Your task to perform on an android device: Clear the cart on ebay.com. Search for rayovac triple a on ebay.com, select the first entry, and add it to the cart. Image 0: 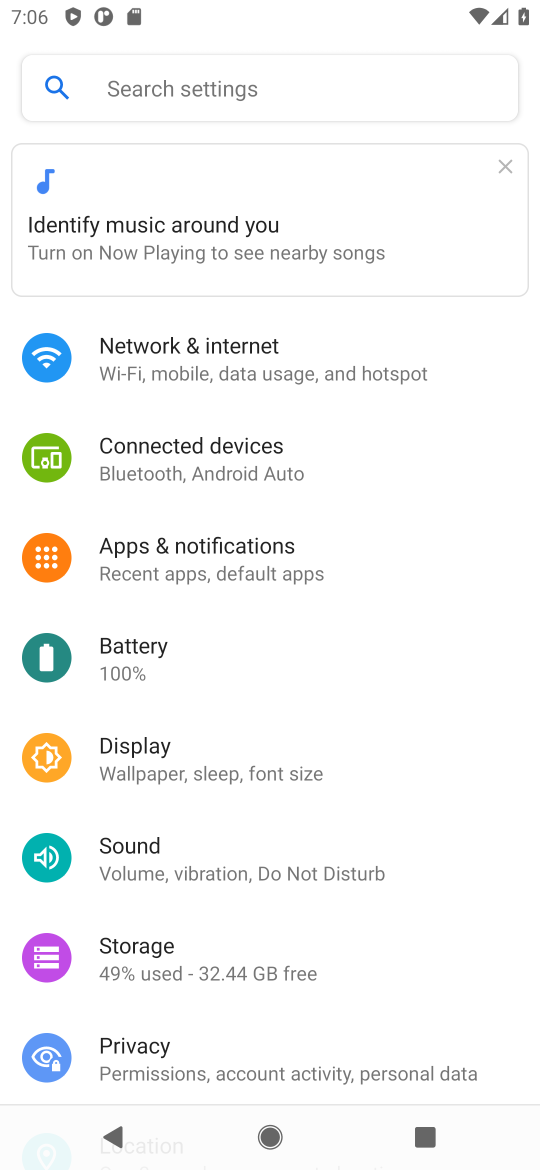
Step 0: press home button
Your task to perform on an android device: Clear the cart on ebay.com. Search for rayovac triple a on ebay.com, select the first entry, and add it to the cart. Image 1: 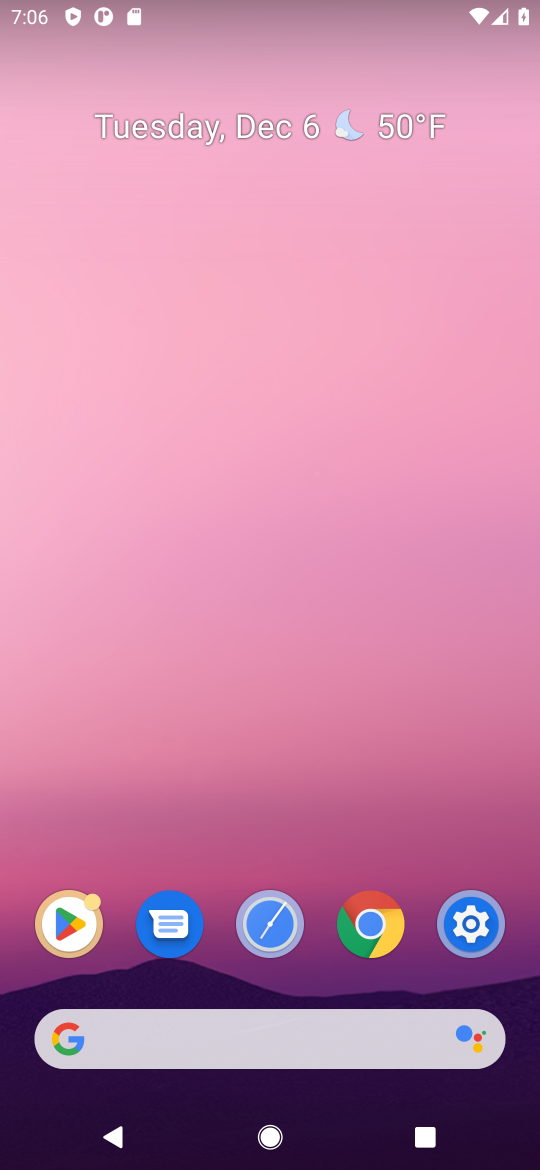
Step 1: click (307, 1029)
Your task to perform on an android device: Clear the cart on ebay.com. Search for rayovac triple a on ebay.com, select the first entry, and add it to the cart. Image 2: 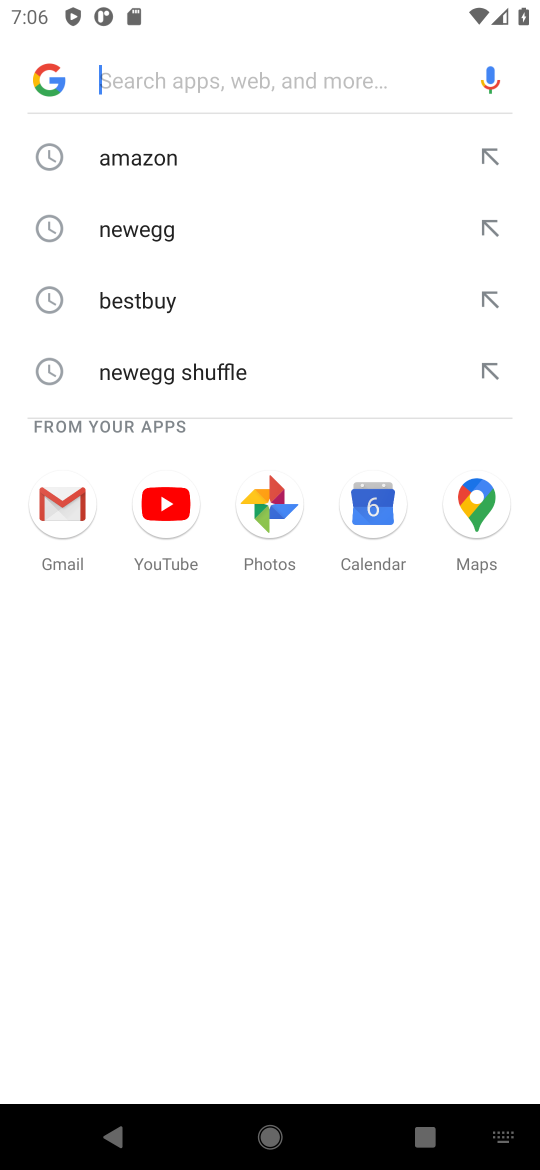
Step 2: type "ebay.com"
Your task to perform on an android device: Clear the cart on ebay.com. Search for rayovac triple a on ebay.com, select the first entry, and add it to the cart. Image 3: 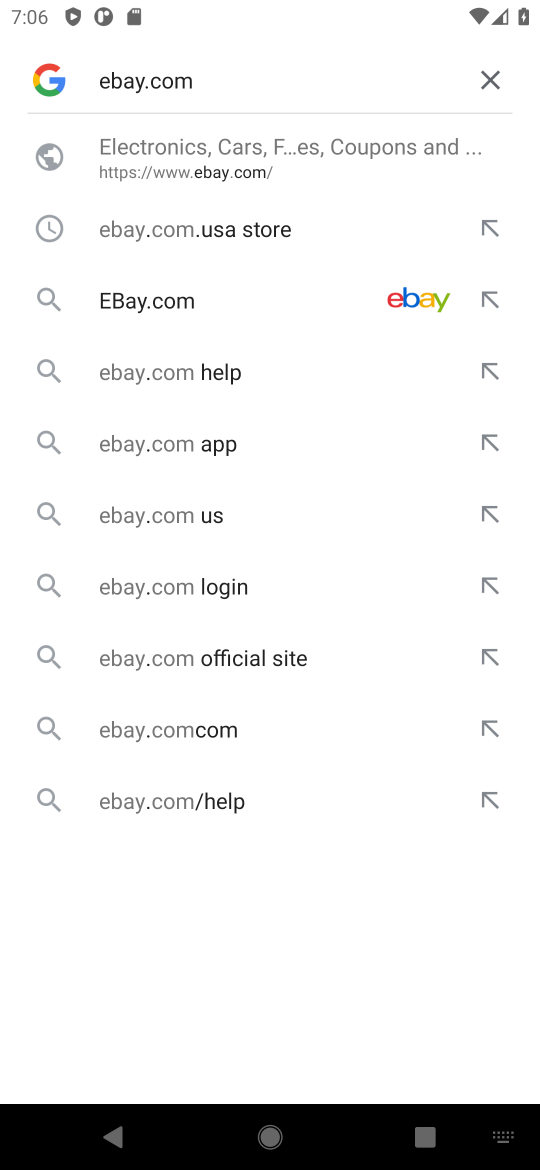
Step 3: click (141, 168)
Your task to perform on an android device: Clear the cart on ebay.com. Search for rayovac triple a on ebay.com, select the first entry, and add it to the cart. Image 4: 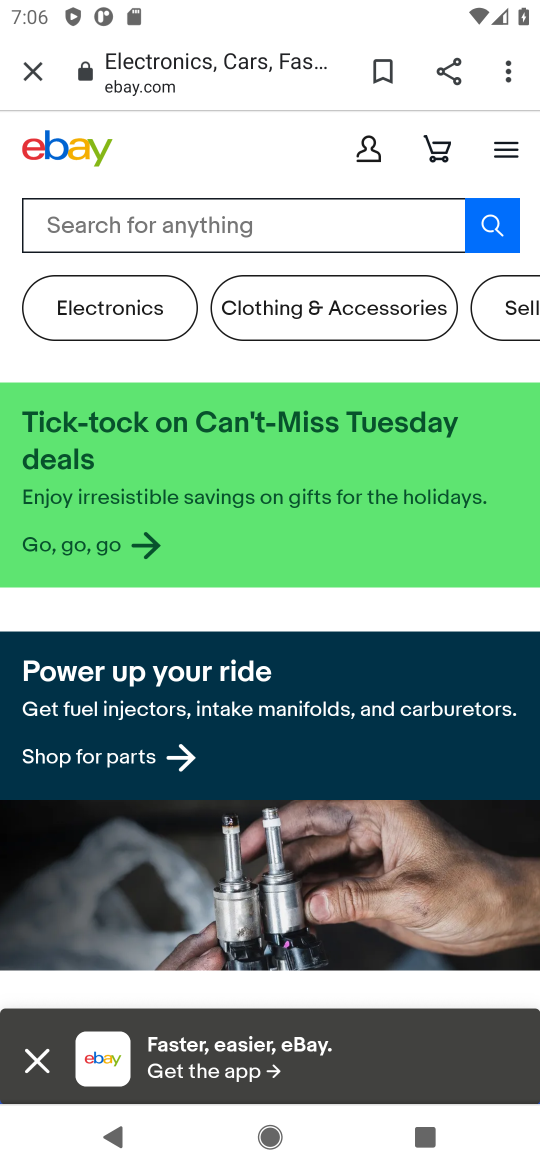
Step 4: click (163, 230)
Your task to perform on an android device: Clear the cart on ebay.com. Search for rayovac triple a on ebay.com, select the first entry, and add it to the cart. Image 5: 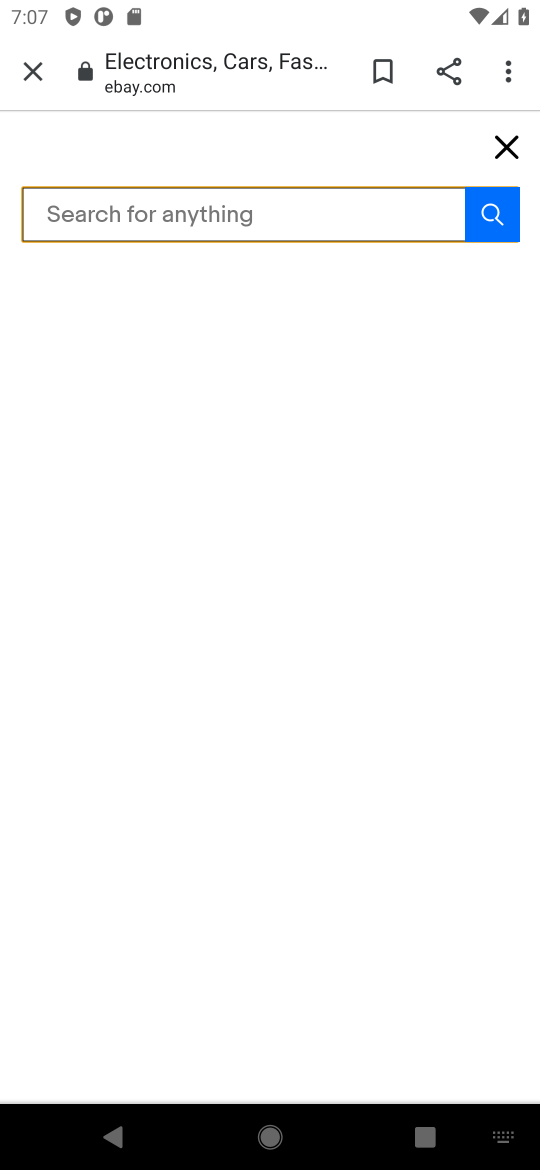
Step 5: type "rayovac triple a"
Your task to perform on an android device: Clear the cart on ebay.com. Search for rayovac triple a on ebay.com, select the first entry, and add it to the cart. Image 6: 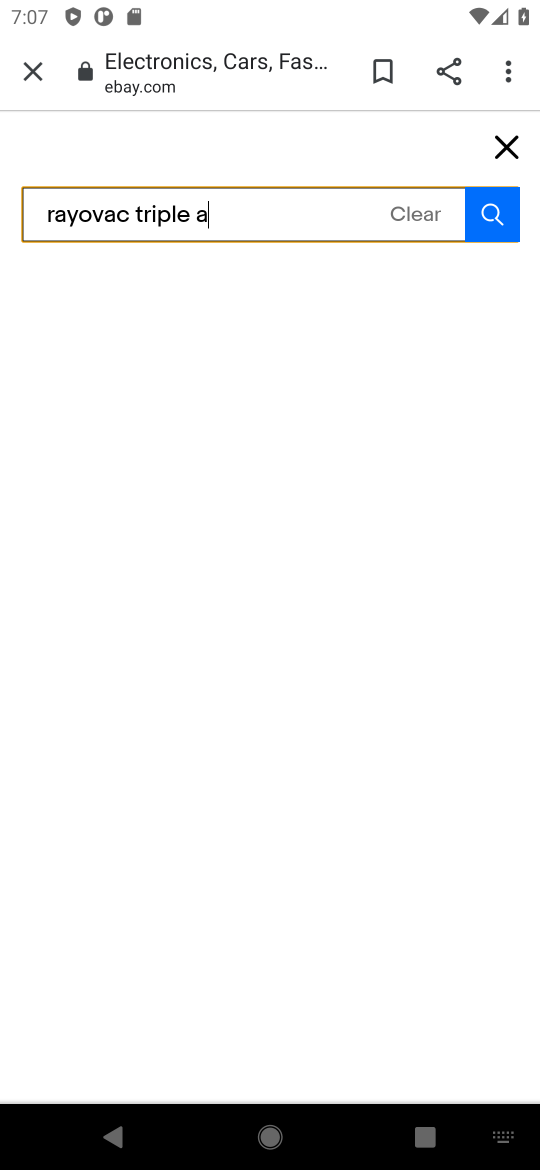
Step 6: click (473, 217)
Your task to perform on an android device: Clear the cart on ebay.com. Search for rayovac triple a on ebay.com, select the first entry, and add it to the cart. Image 7: 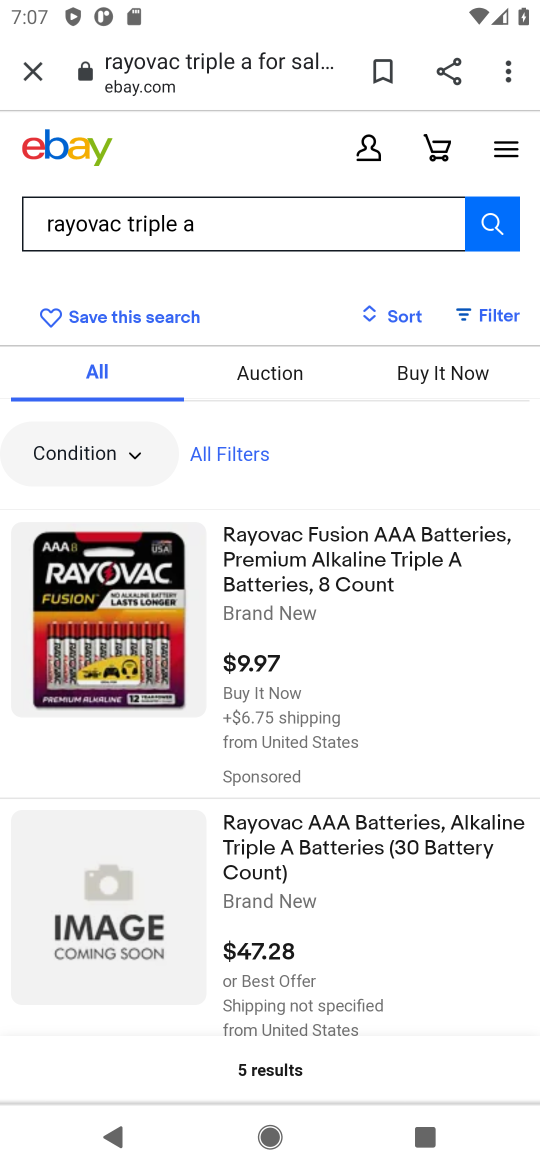
Step 7: click (270, 591)
Your task to perform on an android device: Clear the cart on ebay.com. Search for rayovac triple a on ebay.com, select the first entry, and add it to the cart. Image 8: 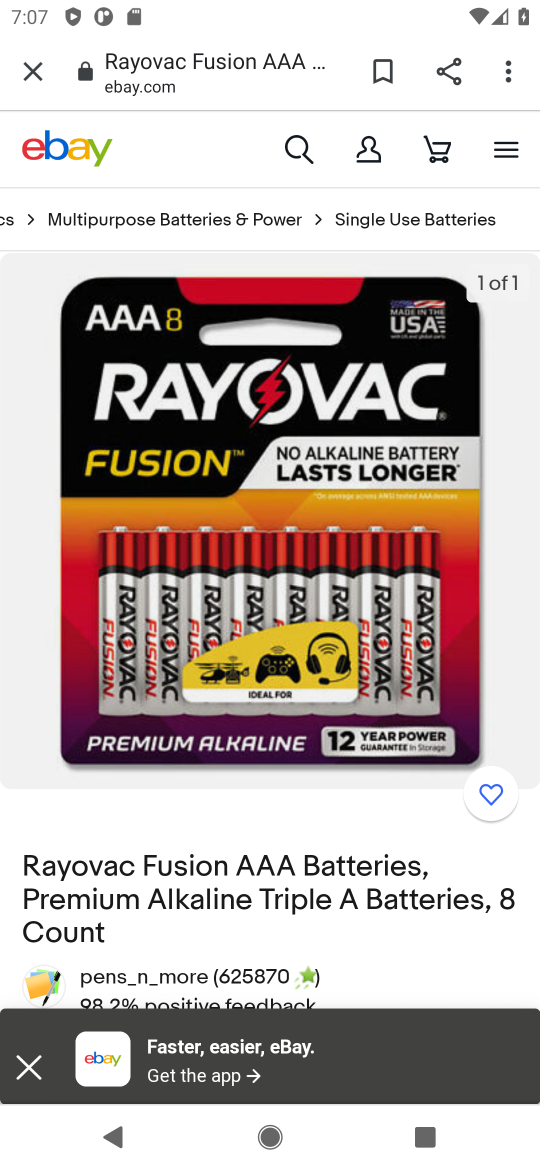
Step 8: task complete